Your task to perform on an android device: change the clock display to show seconds Image 0: 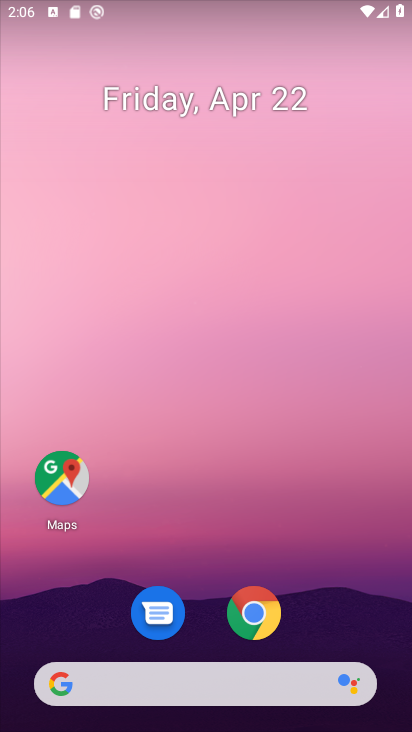
Step 0: drag from (244, 715) to (227, 11)
Your task to perform on an android device: change the clock display to show seconds Image 1: 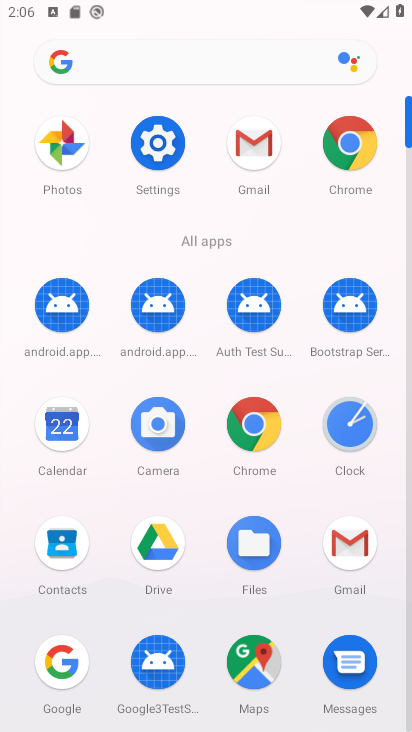
Step 1: click (348, 431)
Your task to perform on an android device: change the clock display to show seconds Image 2: 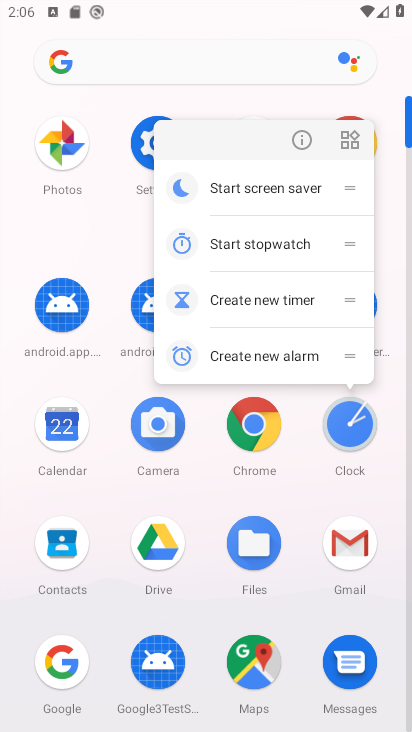
Step 2: click (337, 432)
Your task to perform on an android device: change the clock display to show seconds Image 3: 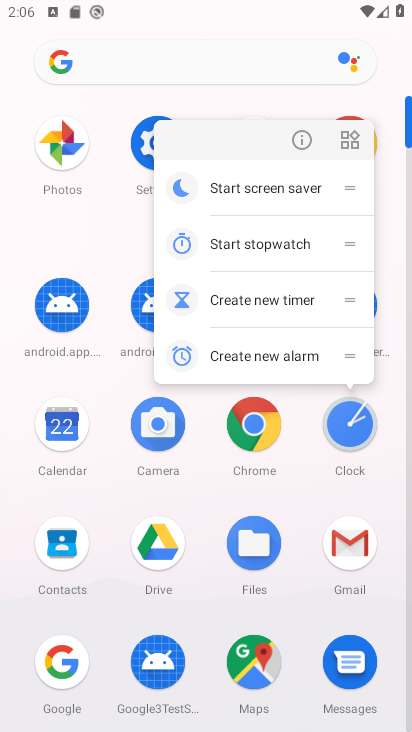
Step 3: click (344, 436)
Your task to perform on an android device: change the clock display to show seconds Image 4: 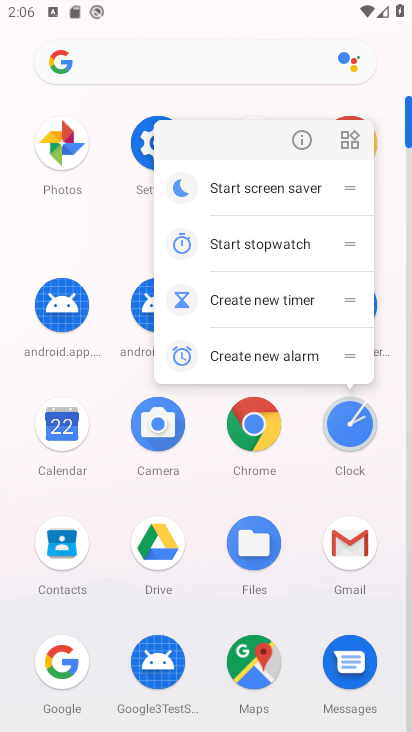
Step 4: click (344, 436)
Your task to perform on an android device: change the clock display to show seconds Image 5: 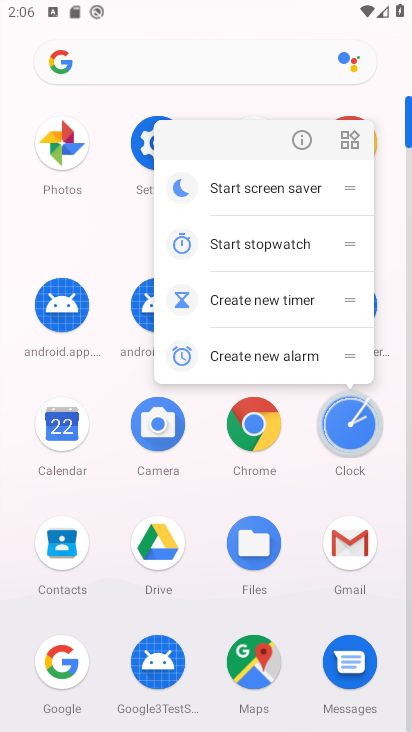
Step 5: click (344, 436)
Your task to perform on an android device: change the clock display to show seconds Image 6: 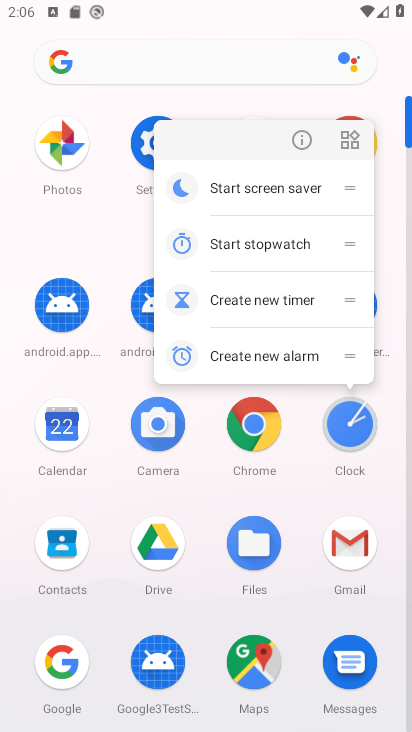
Step 6: click (349, 449)
Your task to perform on an android device: change the clock display to show seconds Image 7: 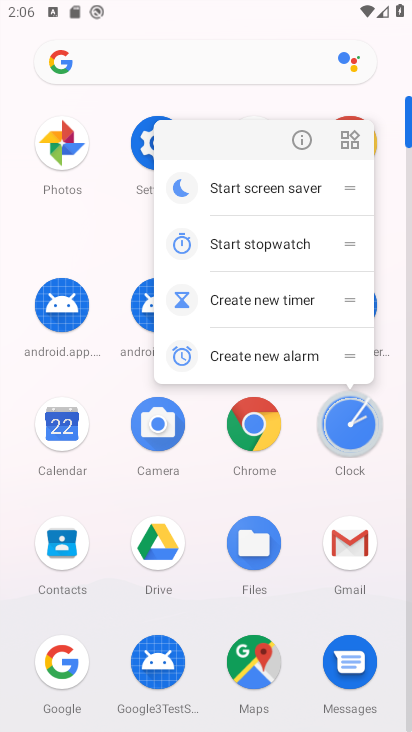
Step 7: click (349, 449)
Your task to perform on an android device: change the clock display to show seconds Image 8: 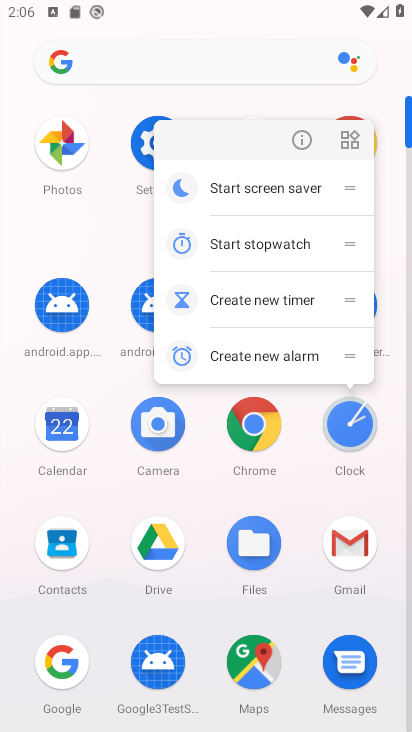
Step 8: click (364, 420)
Your task to perform on an android device: change the clock display to show seconds Image 9: 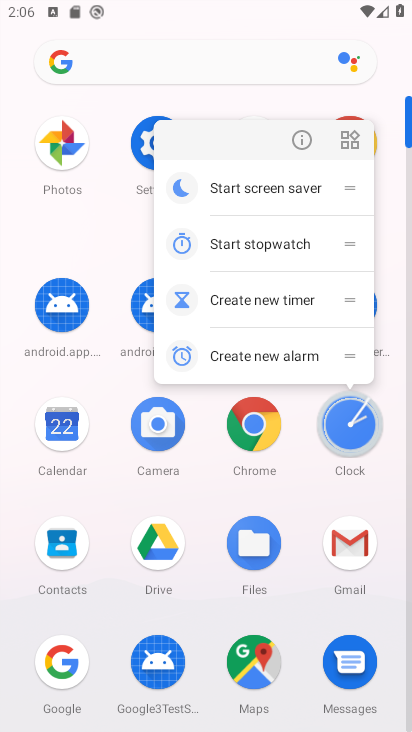
Step 9: click (364, 419)
Your task to perform on an android device: change the clock display to show seconds Image 10: 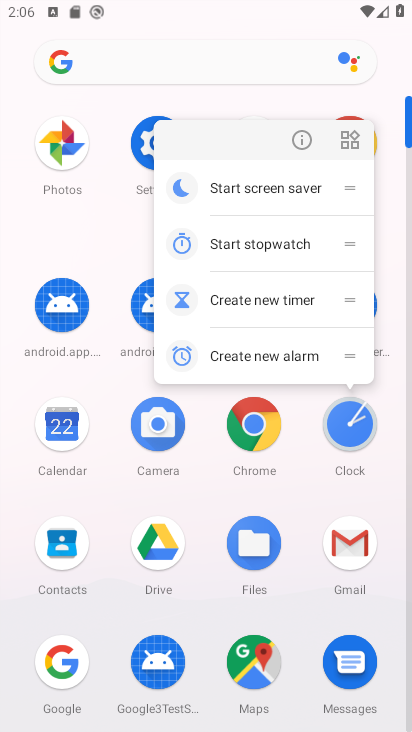
Step 10: click (341, 457)
Your task to perform on an android device: change the clock display to show seconds Image 11: 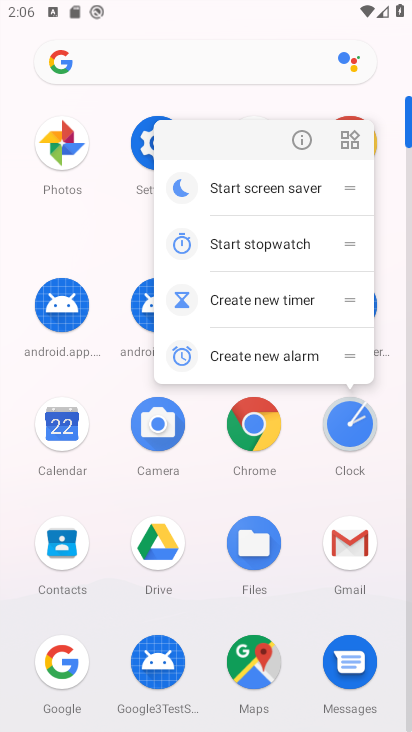
Step 11: click (334, 449)
Your task to perform on an android device: change the clock display to show seconds Image 12: 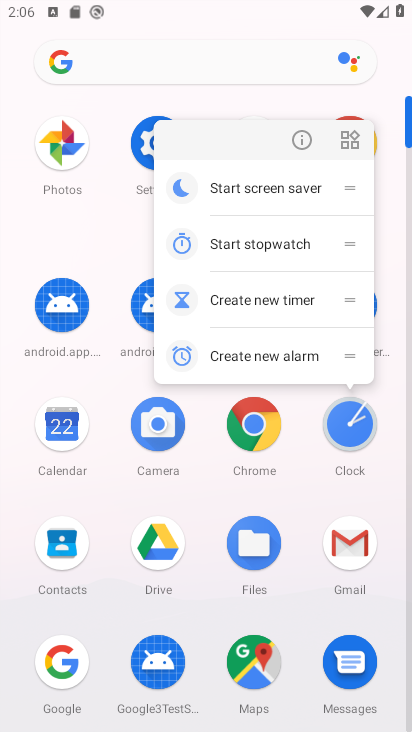
Step 12: click (370, 412)
Your task to perform on an android device: change the clock display to show seconds Image 13: 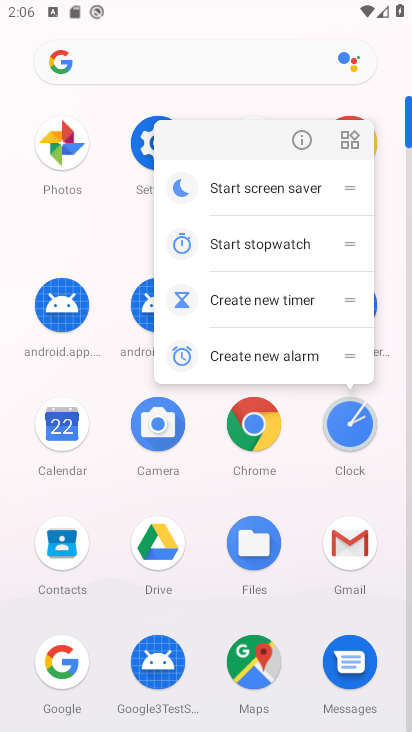
Step 13: click (370, 412)
Your task to perform on an android device: change the clock display to show seconds Image 14: 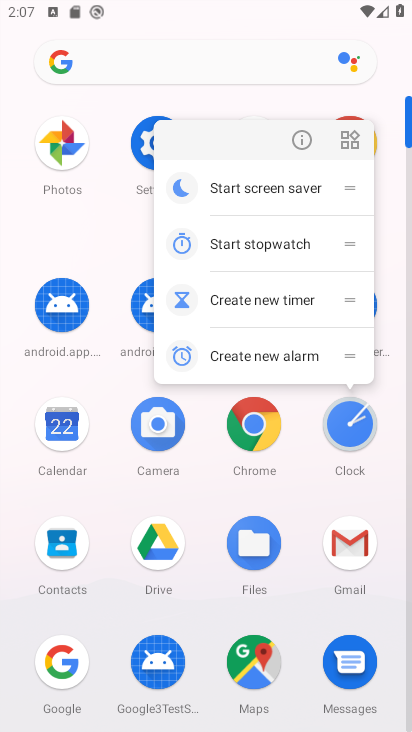
Step 14: click (356, 454)
Your task to perform on an android device: change the clock display to show seconds Image 15: 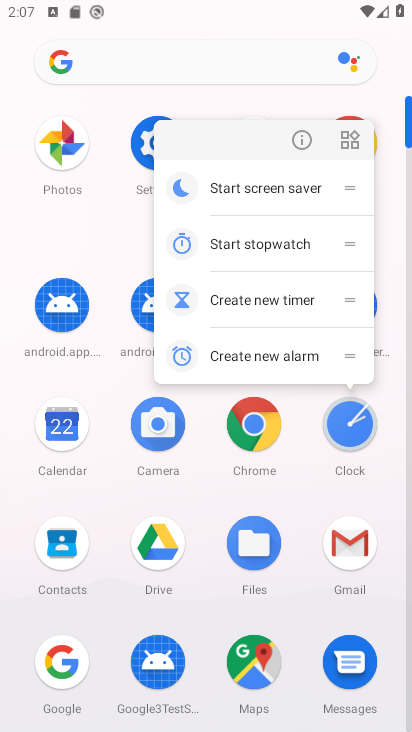
Step 15: click (362, 427)
Your task to perform on an android device: change the clock display to show seconds Image 16: 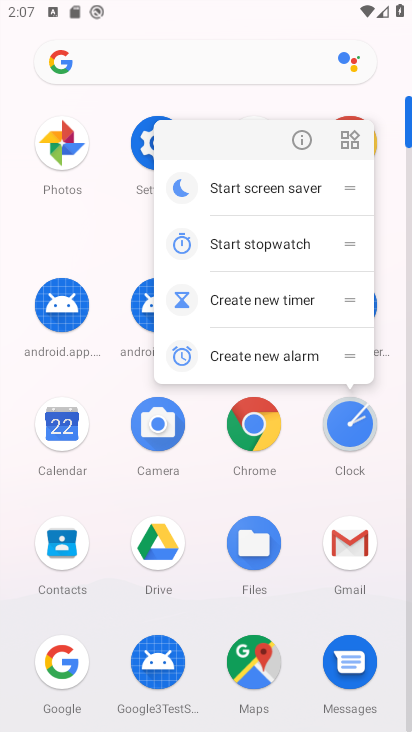
Step 16: click (359, 427)
Your task to perform on an android device: change the clock display to show seconds Image 17: 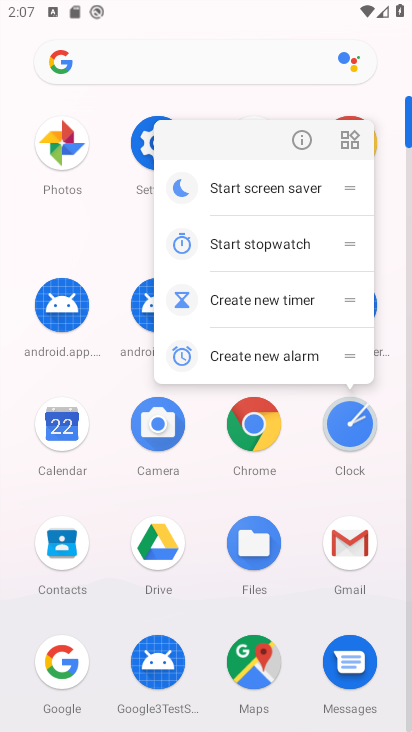
Step 17: click (133, 101)
Your task to perform on an android device: change the clock display to show seconds Image 18: 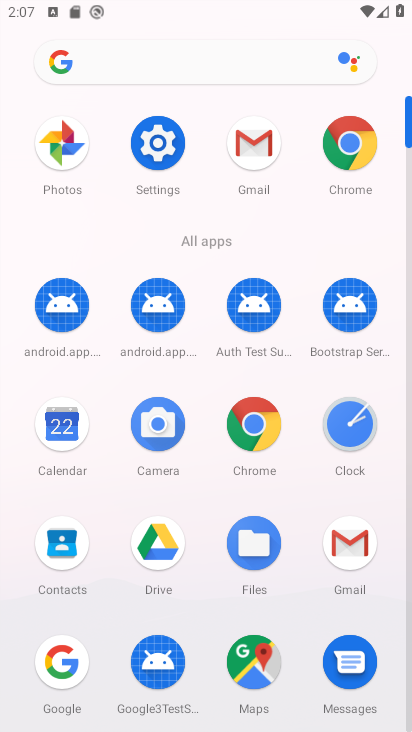
Step 18: click (341, 424)
Your task to perform on an android device: change the clock display to show seconds Image 19: 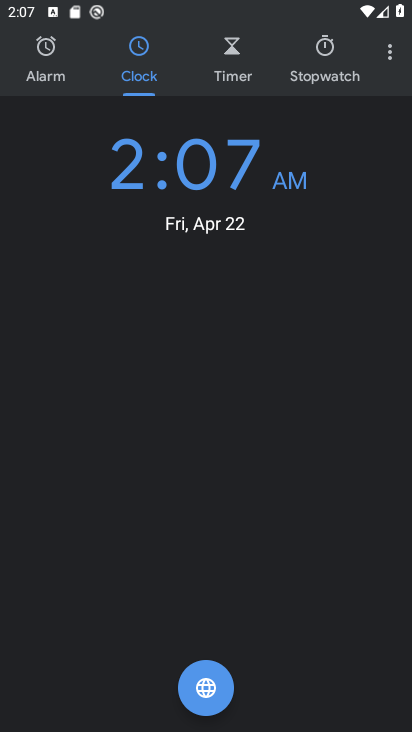
Step 19: click (396, 53)
Your task to perform on an android device: change the clock display to show seconds Image 20: 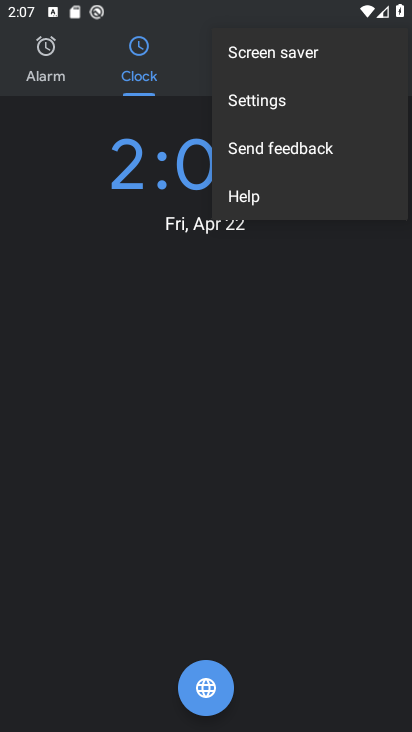
Step 20: click (288, 99)
Your task to perform on an android device: change the clock display to show seconds Image 21: 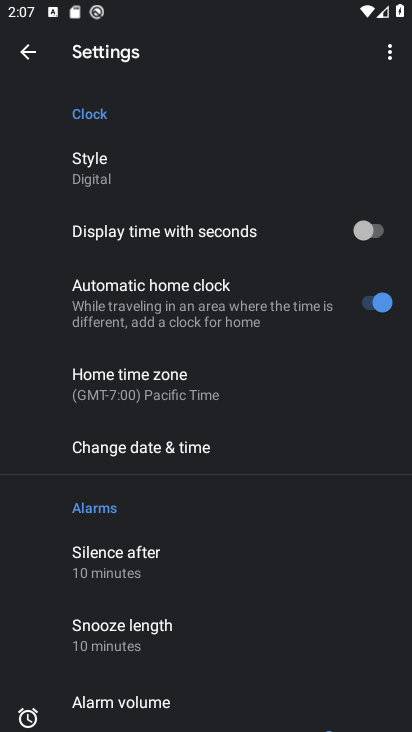
Step 21: click (359, 237)
Your task to perform on an android device: change the clock display to show seconds Image 22: 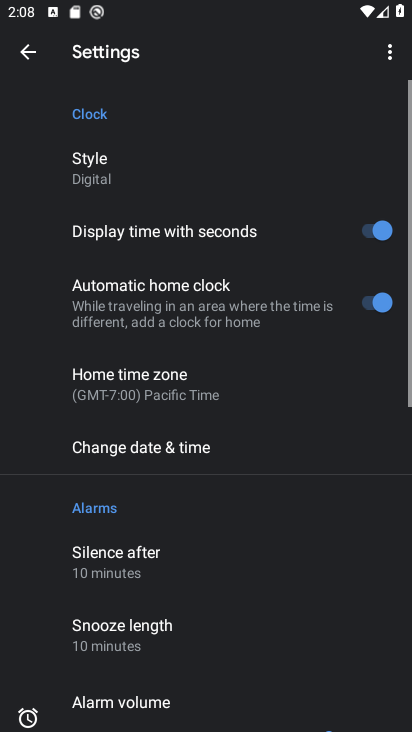
Step 22: task complete